Your task to perform on an android device: check google app version Image 0: 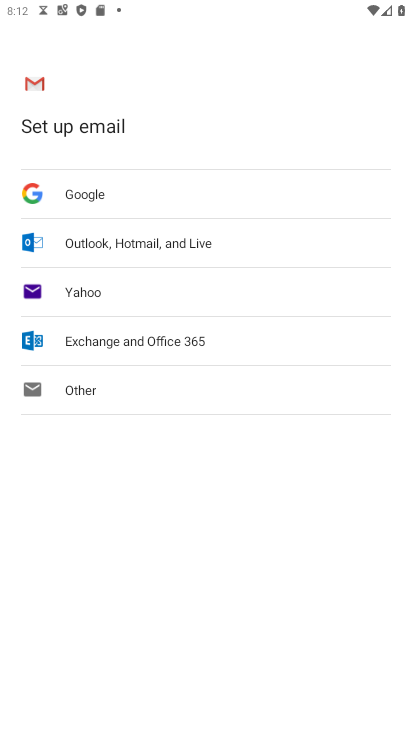
Step 0: press home button
Your task to perform on an android device: check google app version Image 1: 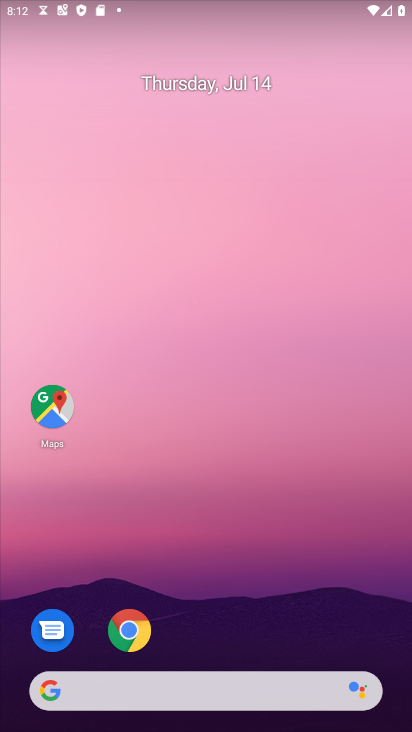
Step 1: drag from (223, 604) to (278, 333)
Your task to perform on an android device: check google app version Image 2: 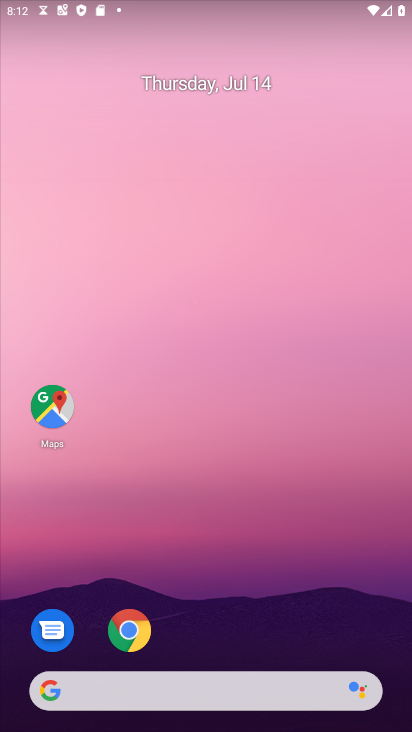
Step 2: drag from (275, 558) to (336, 18)
Your task to perform on an android device: check google app version Image 3: 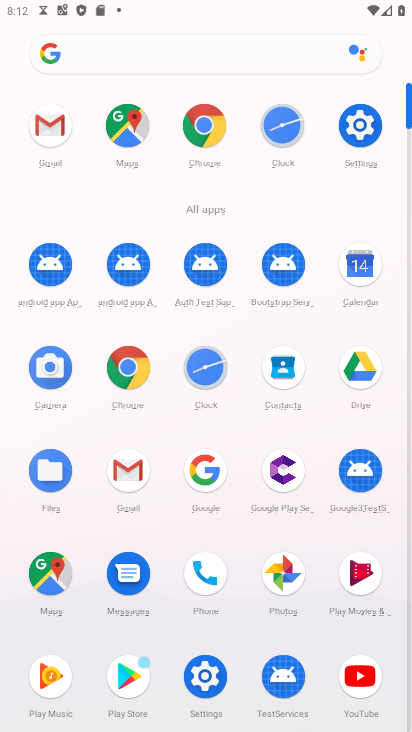
Step 3: click (200, 468)
Your task to perform on an android device: check google app version Image 4: 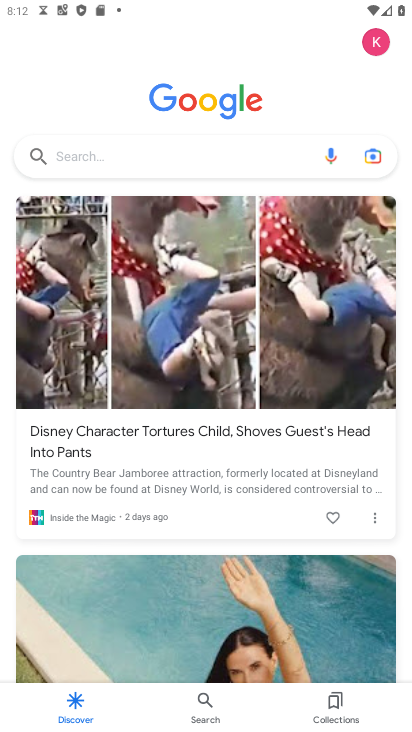
Step 4: click (374, 40)
Your task to perform on an android device: check google app version Image 5: 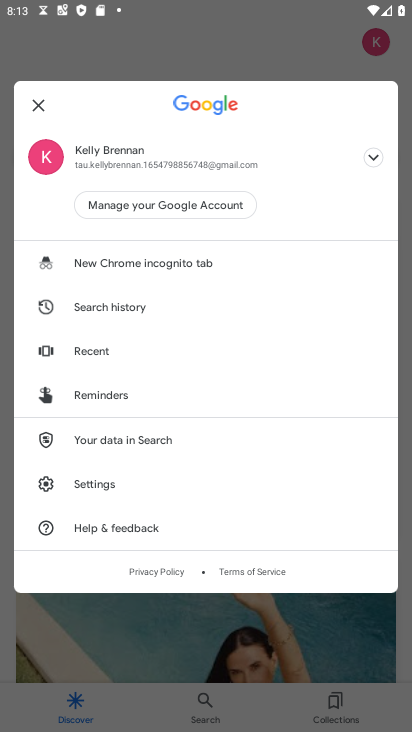
Step 5: click (138, 488)
Your task to perform on an android device: check google app version Image 6: 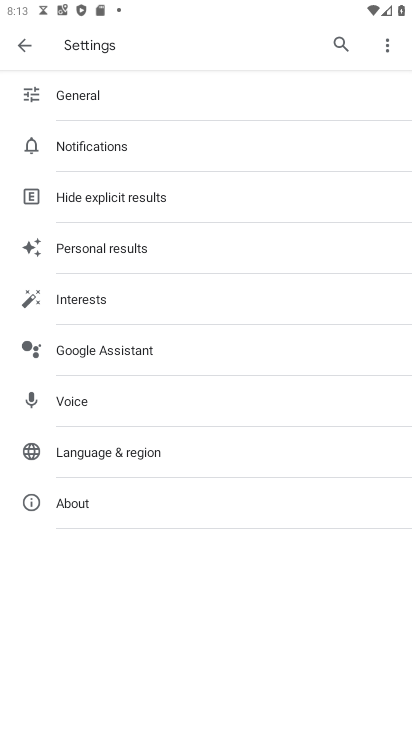
Step 6: click (113, 498)
Your task to perform on an android device: check google app version Image 7: 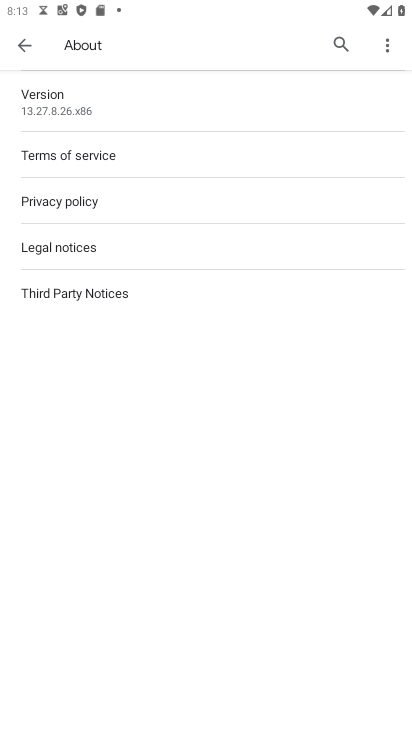
Step 7: click (158, 100)
Your task to perform on an android device: check google app version Image 8: 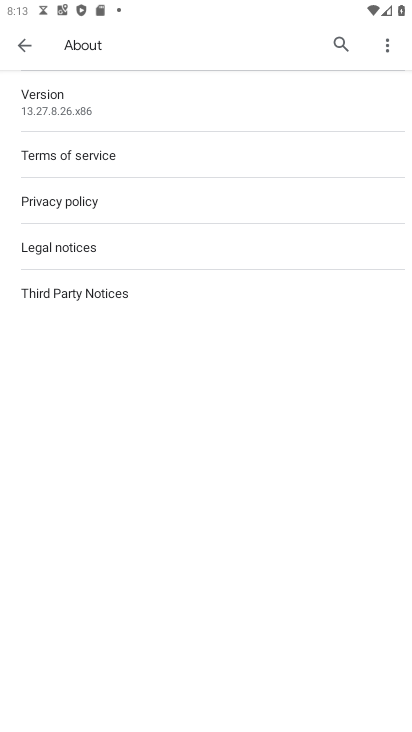
Step 8: task complete